Your task to perform on an android device: Go to calendar. Show me events next week Image 0: 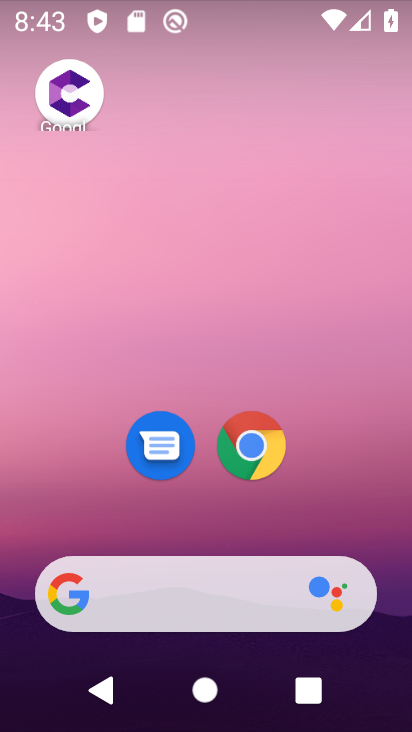
Step 0: drag from (204, 404) to (207, 132)
Your task to perform on an android device: Go to calendar. Show me events next week Image 1: 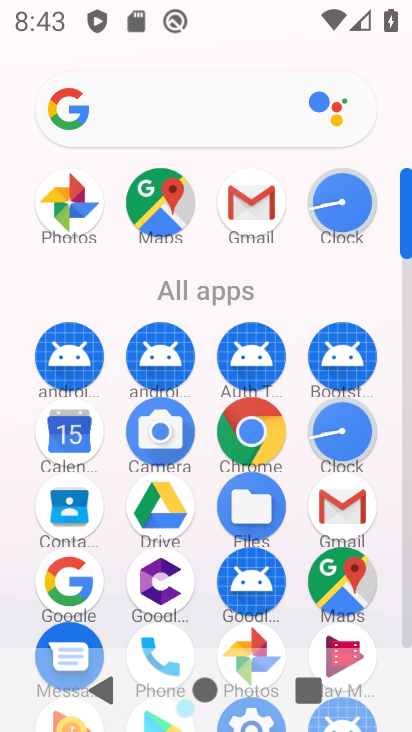
Step 1: click (78, 452)
Your task to perform on an android device: Go to calendar. Show me events next week Image 2: 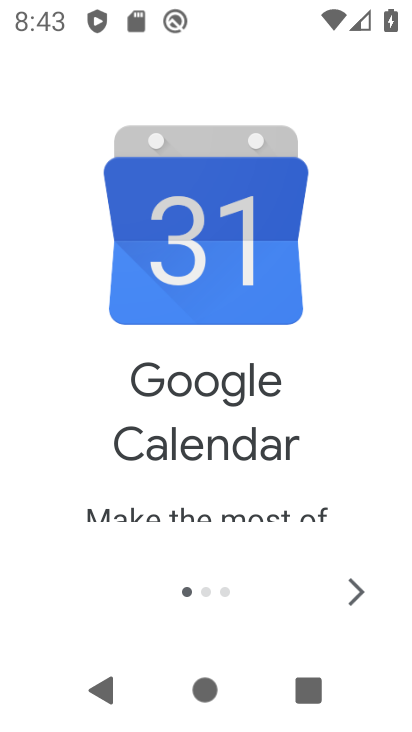
Step 2: click (344, 597)
Your task to perform on an android device: Go to calendar. Show me events next week Image 3: 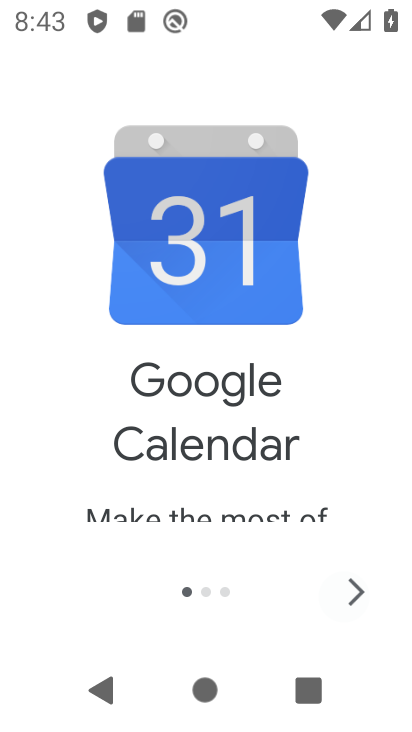
Step 3: click (344, 597)
Your task to perform on an android device: Go to calendar. Show me events next week Image 4: 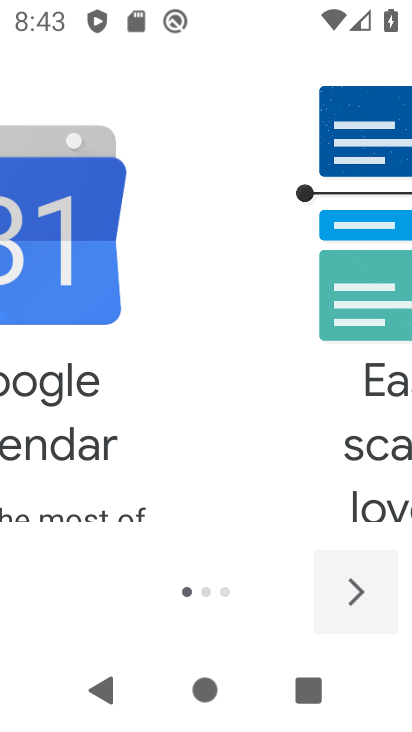
Step 4: click (344, 597)
Your task to perform on an android device: Go to calendar. Show me events next week Image 5: 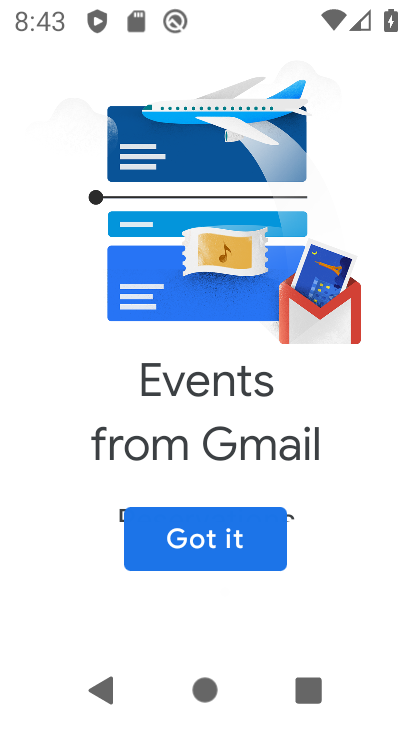
Step 5: click (344, 597)
Your task to perform on an android device: Go to calendar. Show me events next week Image 6: 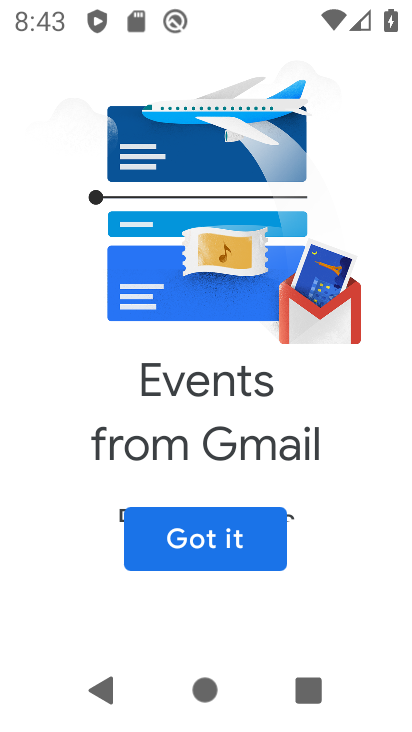
Step 6: click (344, 598)
Your task to perform on an android device: Go to calendar. Show me events next week Image 7: 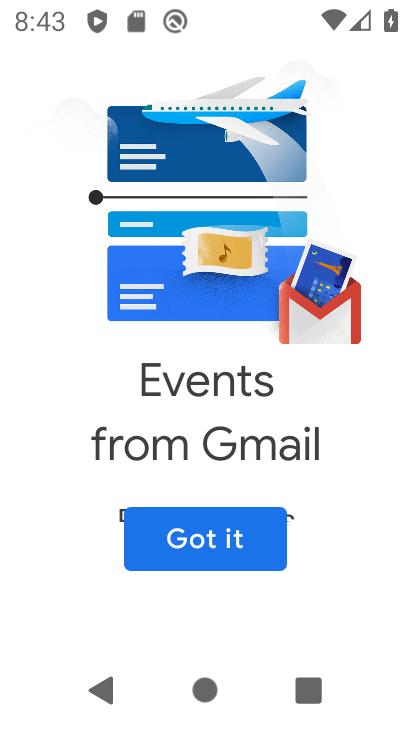
Step 7: click (228, 555)
Your task to perform on an android device: Go to calendar. Show me events next week Image 8: 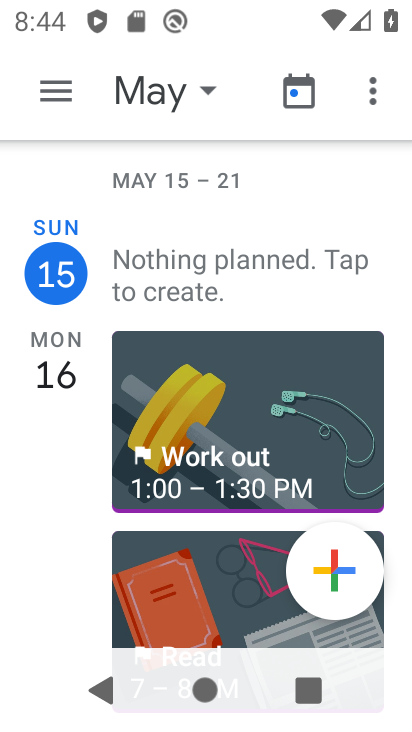
Step 8: click (203, 86)
Your task to perform on an android device: Go to calendar. Show me events next week Image 9: 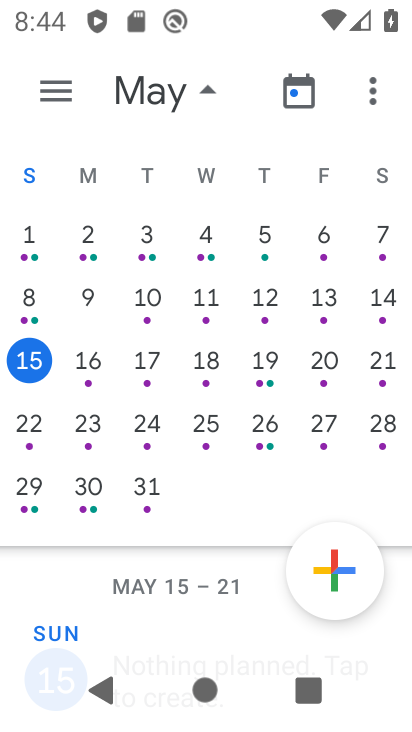
Step 9: click (33, 427)
Your task to perform on an android device: Go to calendar. Show me events next week Image 10: 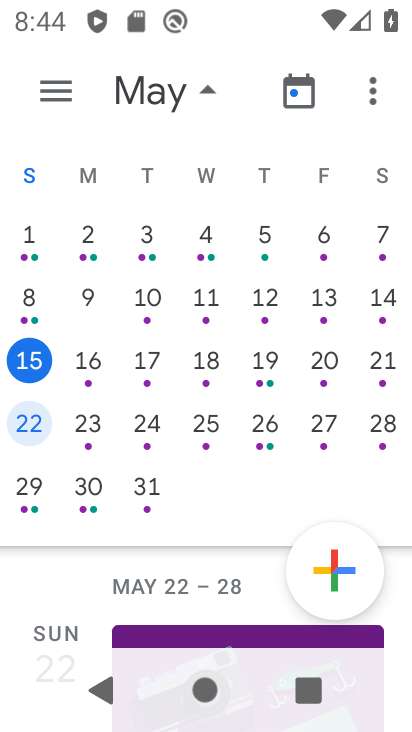
Step 10: task complete